Your task to perform on an android device: check android version Image 0: 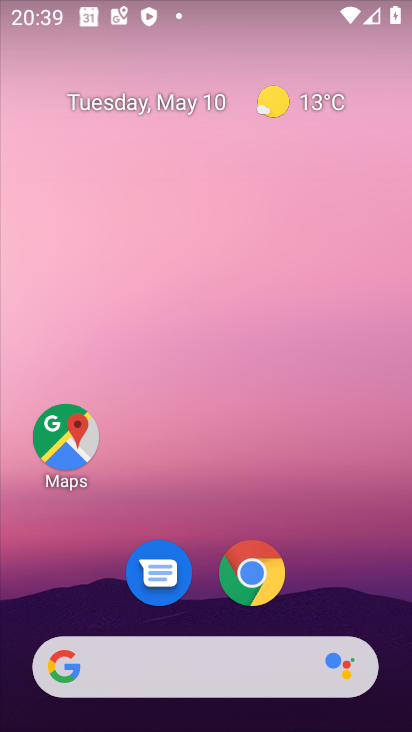
Step 0: drag from (366, 621) to (399, 10)
Your task to perform on an android device: check android version Image 1: 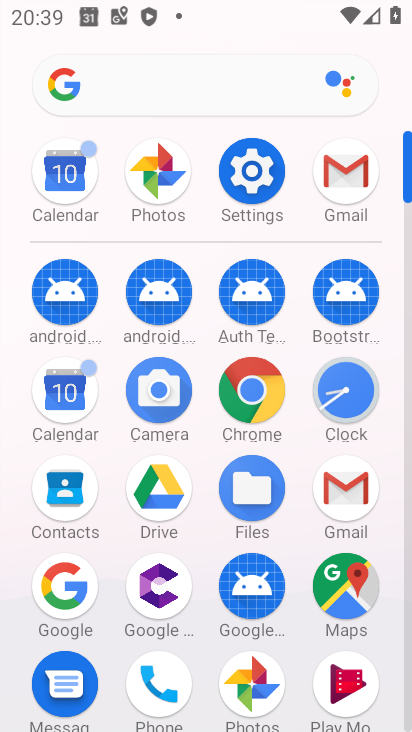
Step 1: click (251, 185)
Your task to perform on an android device: check android version Image 2: 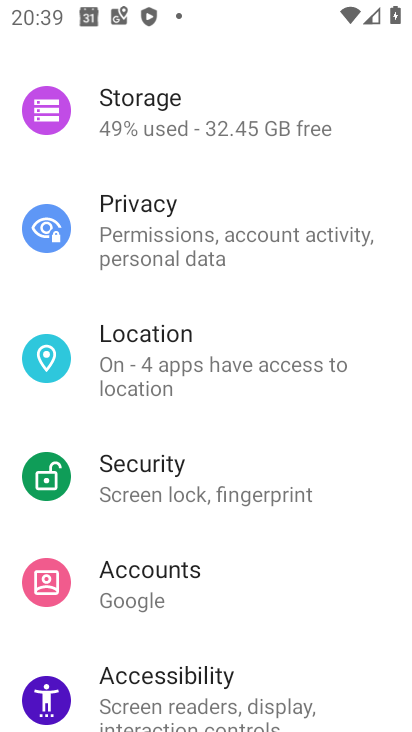
Step 2: drag from (313, 654) to (302, 12)
Your task to perform on an android device: check android version Image 3: 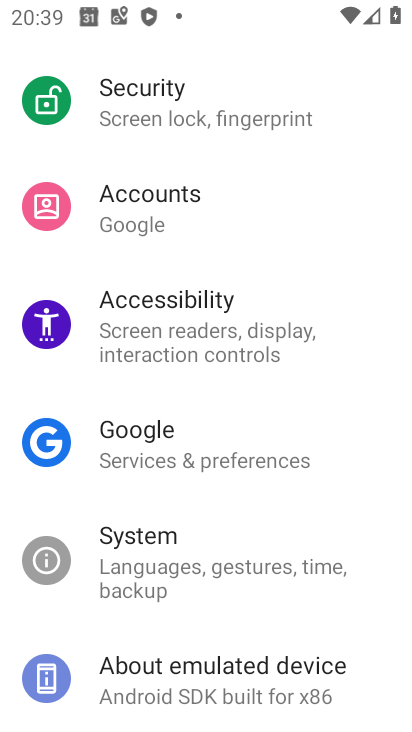
Step 3: click (199, 677)
Your task to perform on an android device: check android version Image 4: 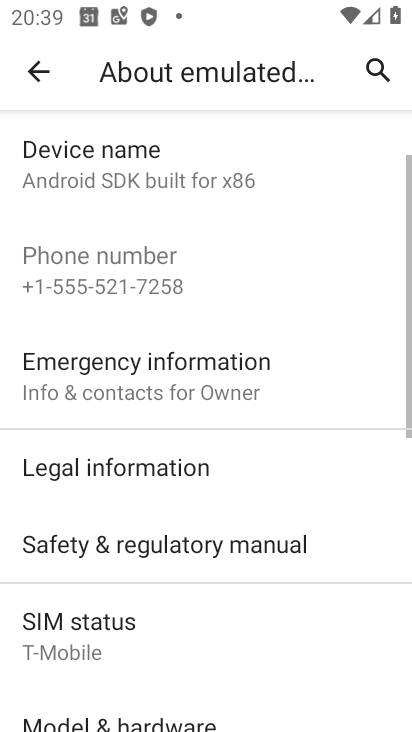
Step 4: drag from (292, 599) to (306, 63)
Your task to perform on an android device: check android version Image 5: 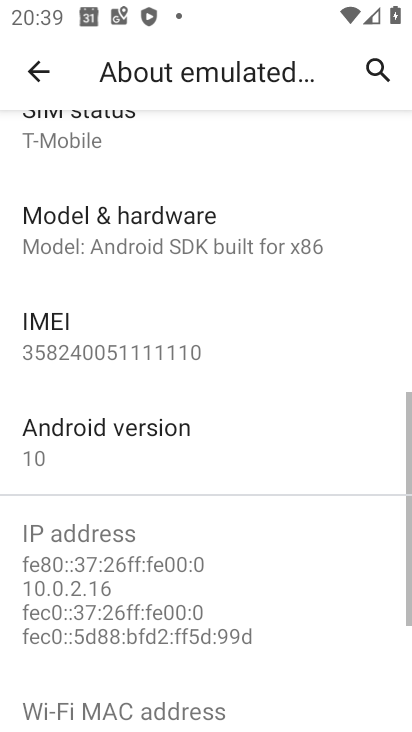
Step 5: click (84, 436)
Your task to perform on an android device: check android version Image 6: 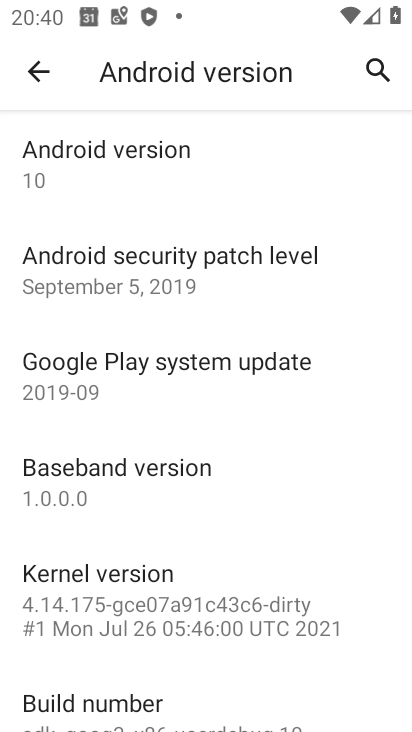
Step 6: task complete